Your task to perform on an android device: Clear the shopping cart on ebay. Search for "macbook pro 13 inch" on ebay, select the first entry, add it to the cart, then select checkout. Image 0: 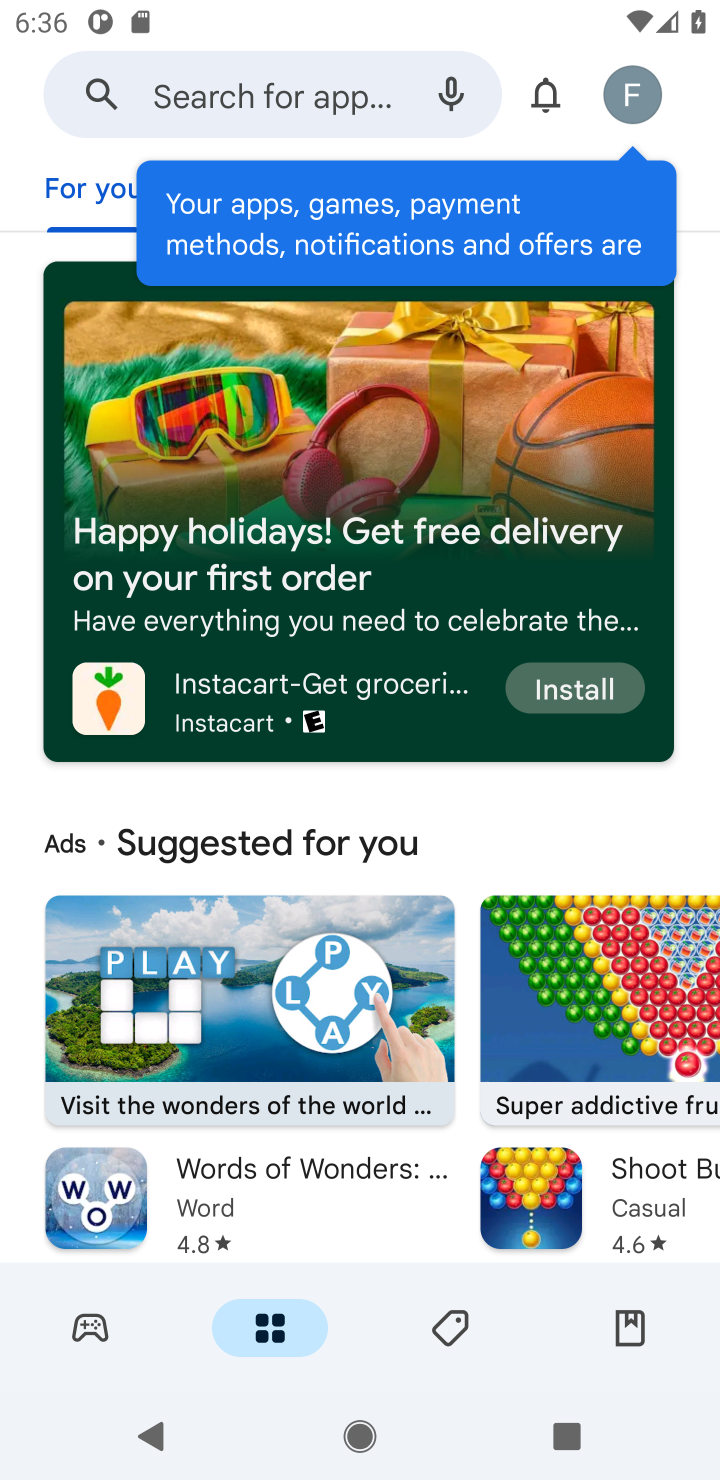
Step 0: press home button
Your task to perform on an android device: Clear the shopping cart on ebay. Search for "macbook pro 13 inch" on ebay, select the first entry, add it to the cart, then select checkout. Image 1: 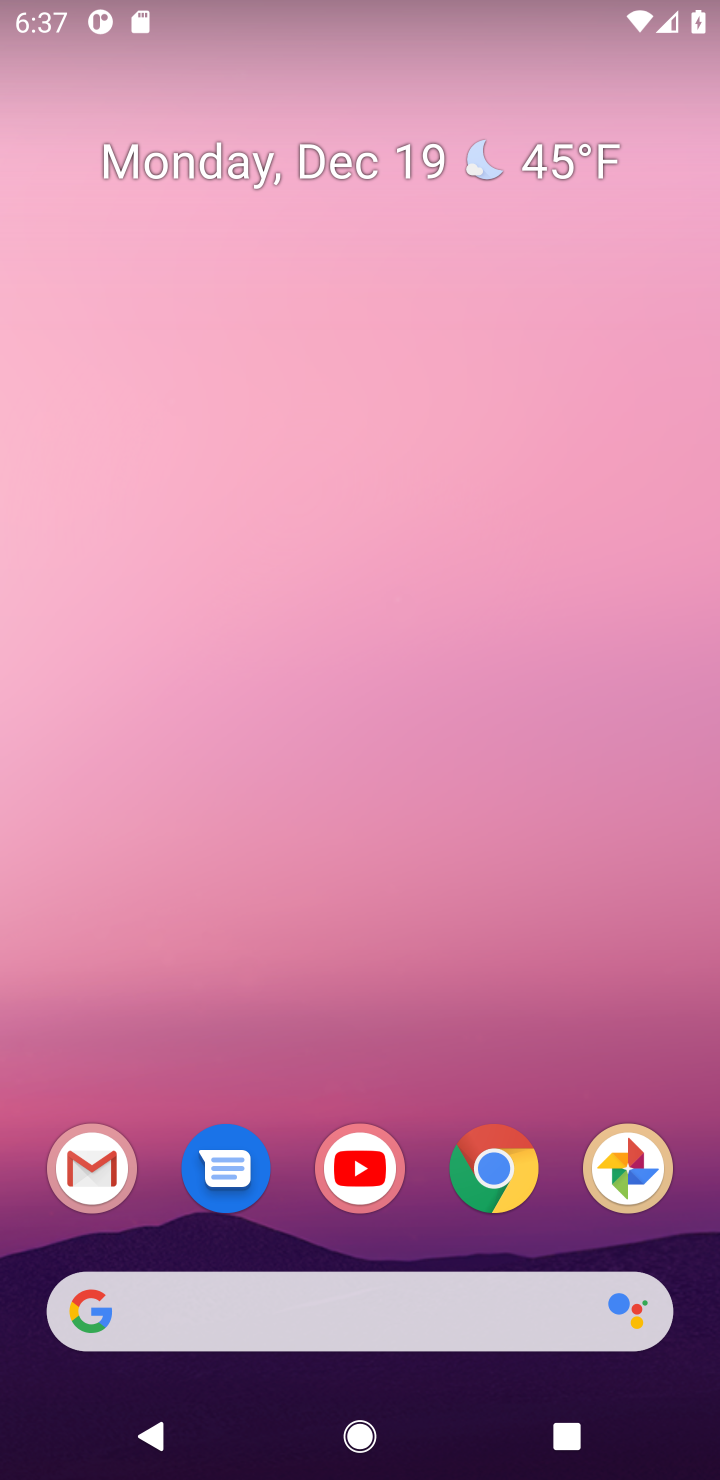
Step 1: click (492, 1180)
Your task to perform on an android device: Clear the shopping cart on ebay. Search for "macbook pro 13 inch" on ebay, select the first entry, add it to the cart, then select checkout. Image 2: 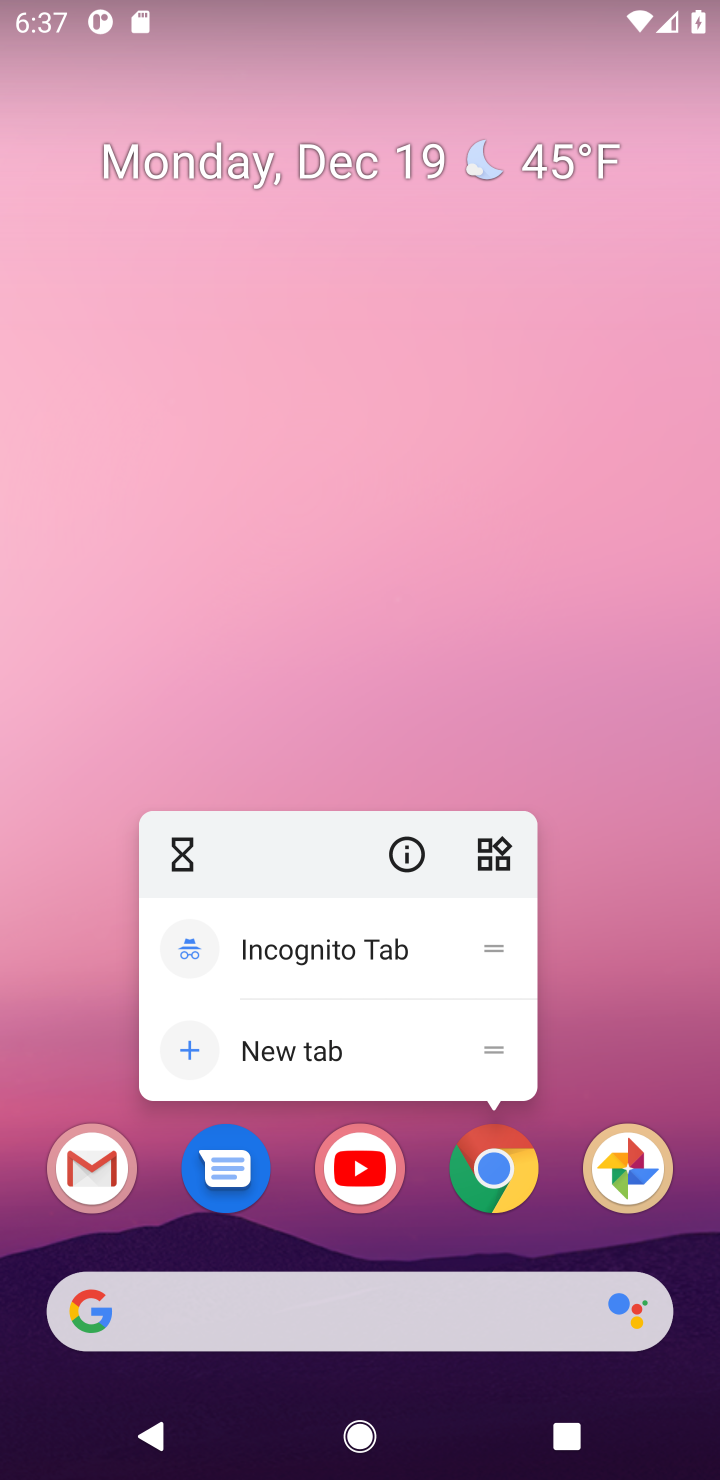
Step 2: click (492, 1180)
Your task to perform on an android device: Clear the shopping cart on ebay. Search for "macbook pro 13 inch" on ebay, select the first entry, add it to the cart, then select checkout. Image 3: 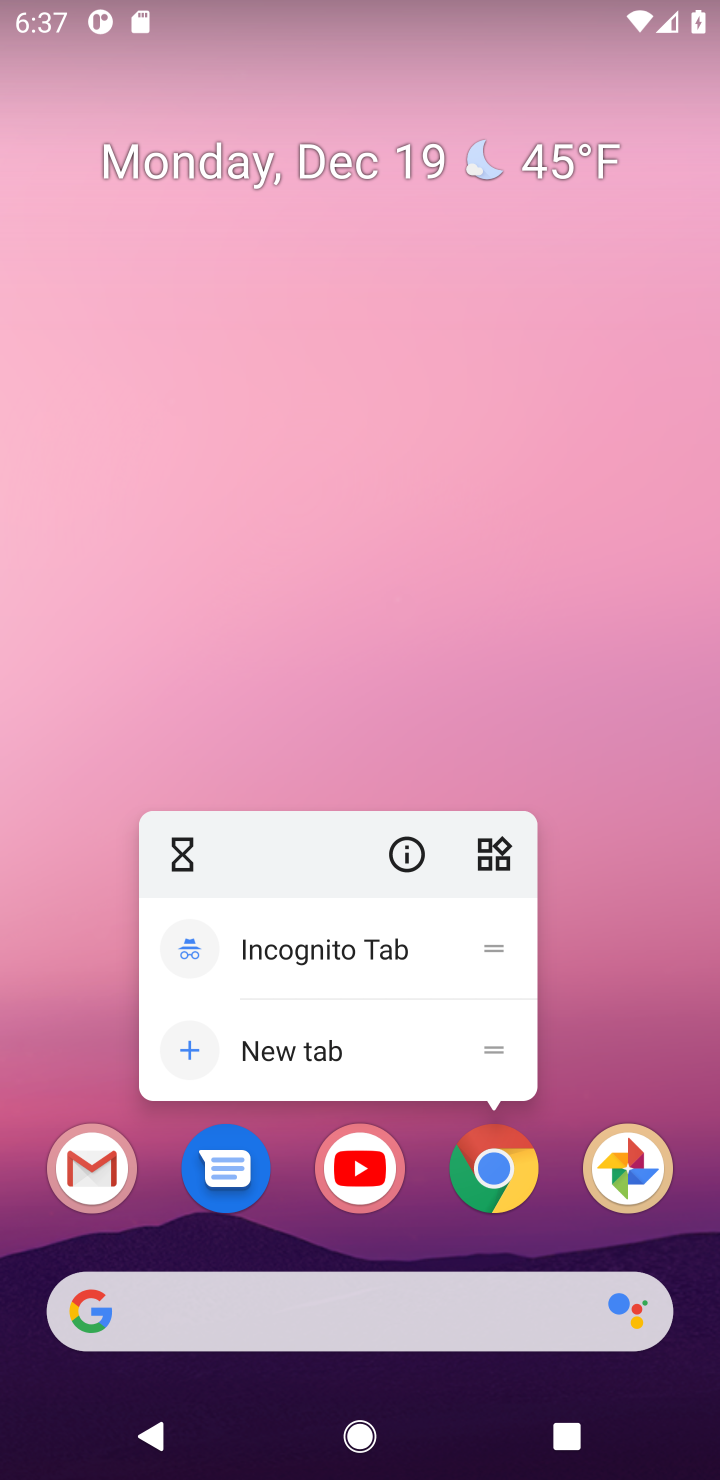
Step 3: click (505, 1172)
Your task to perform on an android device: Clear the shopping cart on ebay. Search for "macbook pro 13 inch" on ebay, select the first entry, add it to the cart, then select checkout. Image 4: 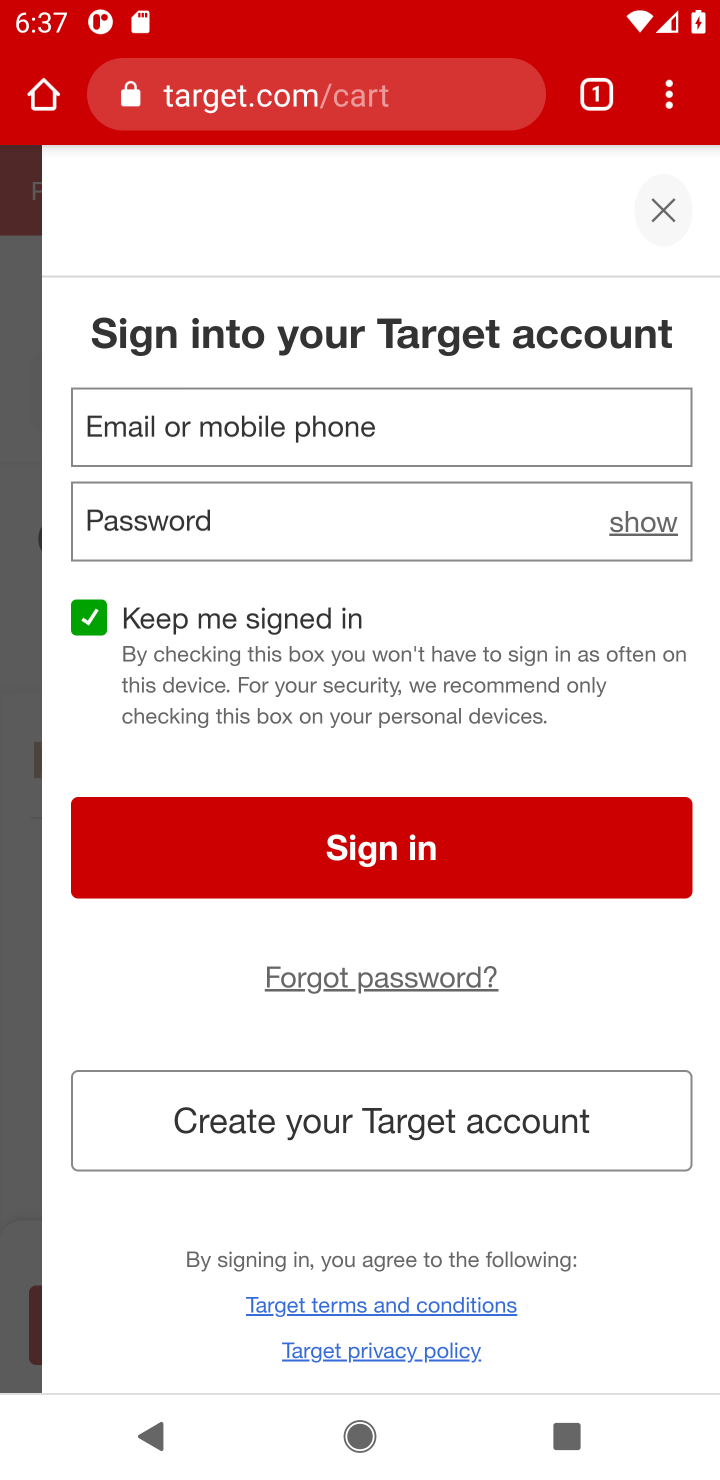
Step 4: click (247, 103)
Your task to perform on an android device: Clear the shopping cart on ebay. Search for "macbook pro 13 inch" on ebay, select the first entry, add it to the cart, then select checkout. Image 5: 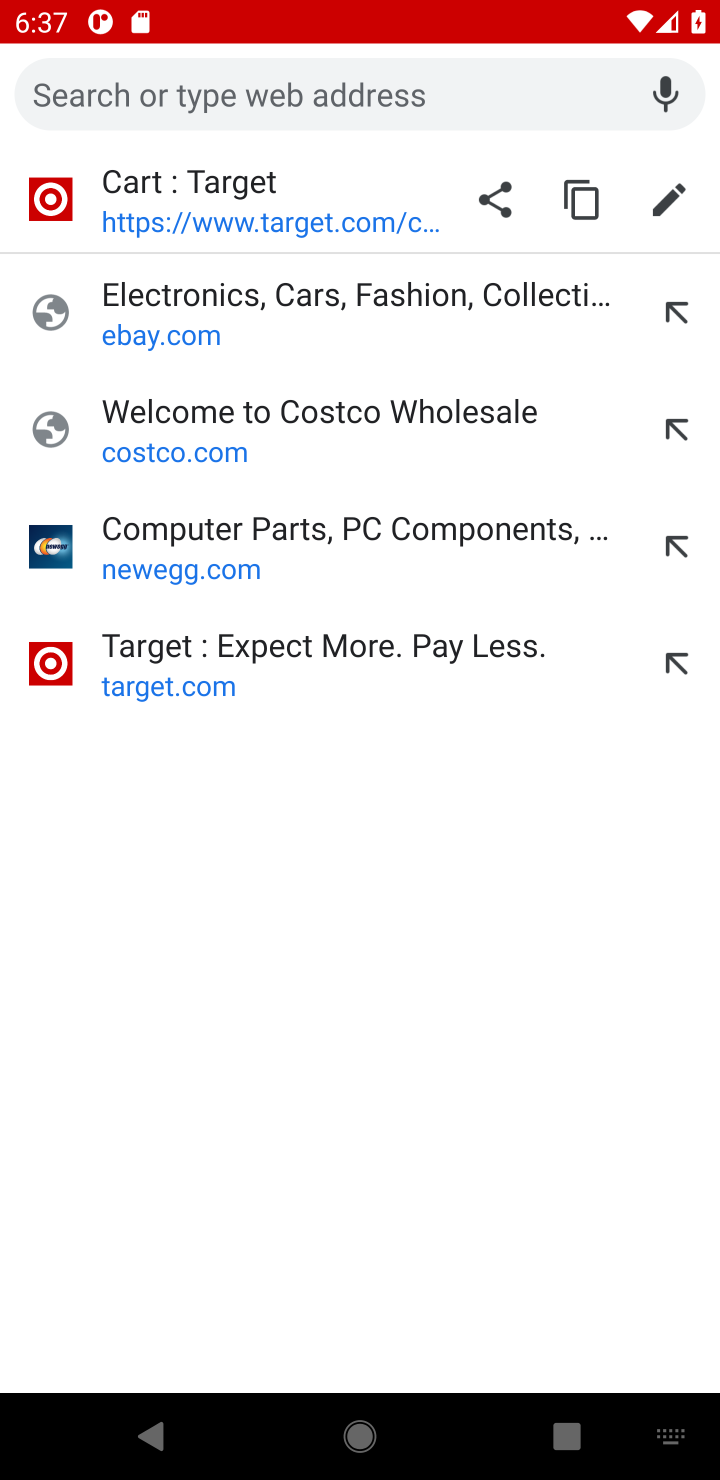
Step 5: click (146, 333)
Your task to perform on an android device: Clear the shopping cart on ebay. Search for "macbook pro 13 inch" on ebay, select the first entry, add it to the cart, then select checkout. Image 6: 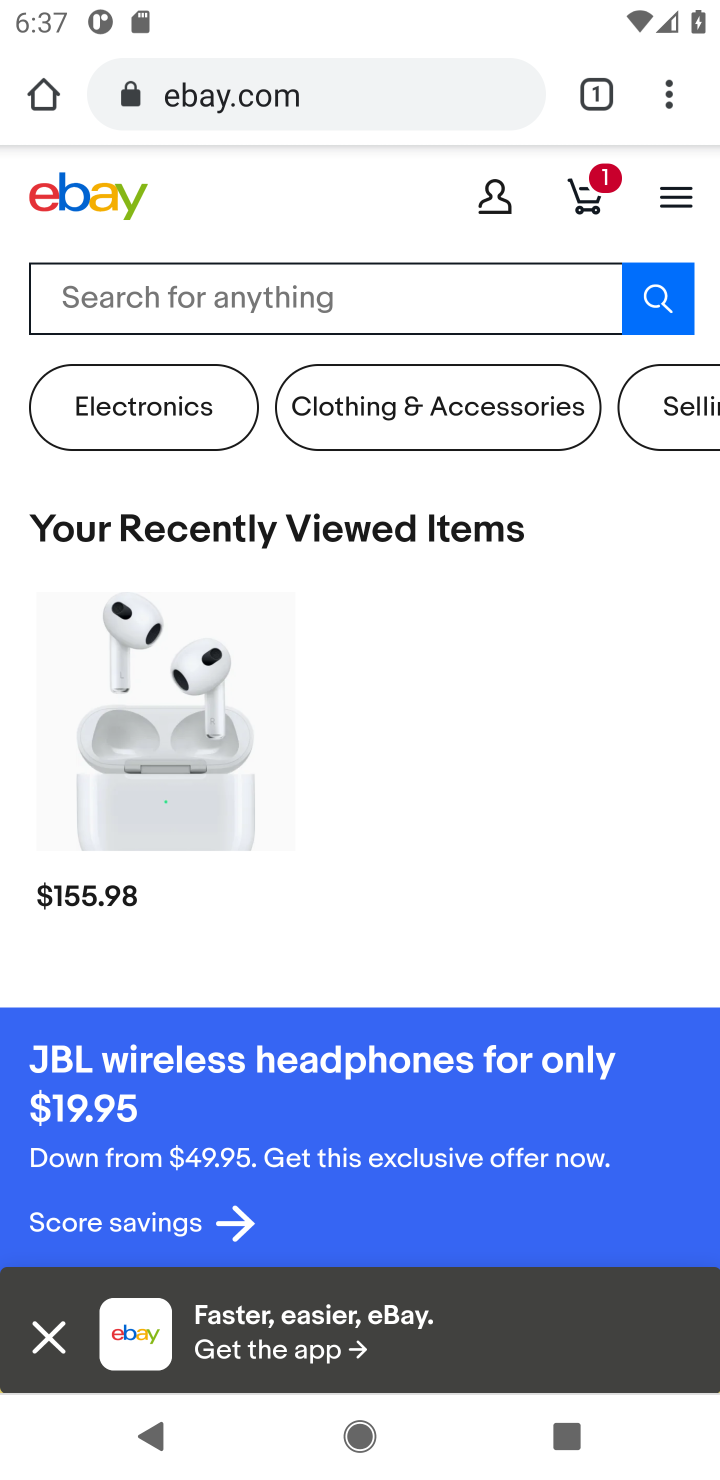
Step 6: click (590, 202)
Your task to perform on an android device: Clear the shopping cart on ebay. Search for "macbook pro 13 inch" on ebay, select the first entry, add it to the cart, then select checkout. Image 7: 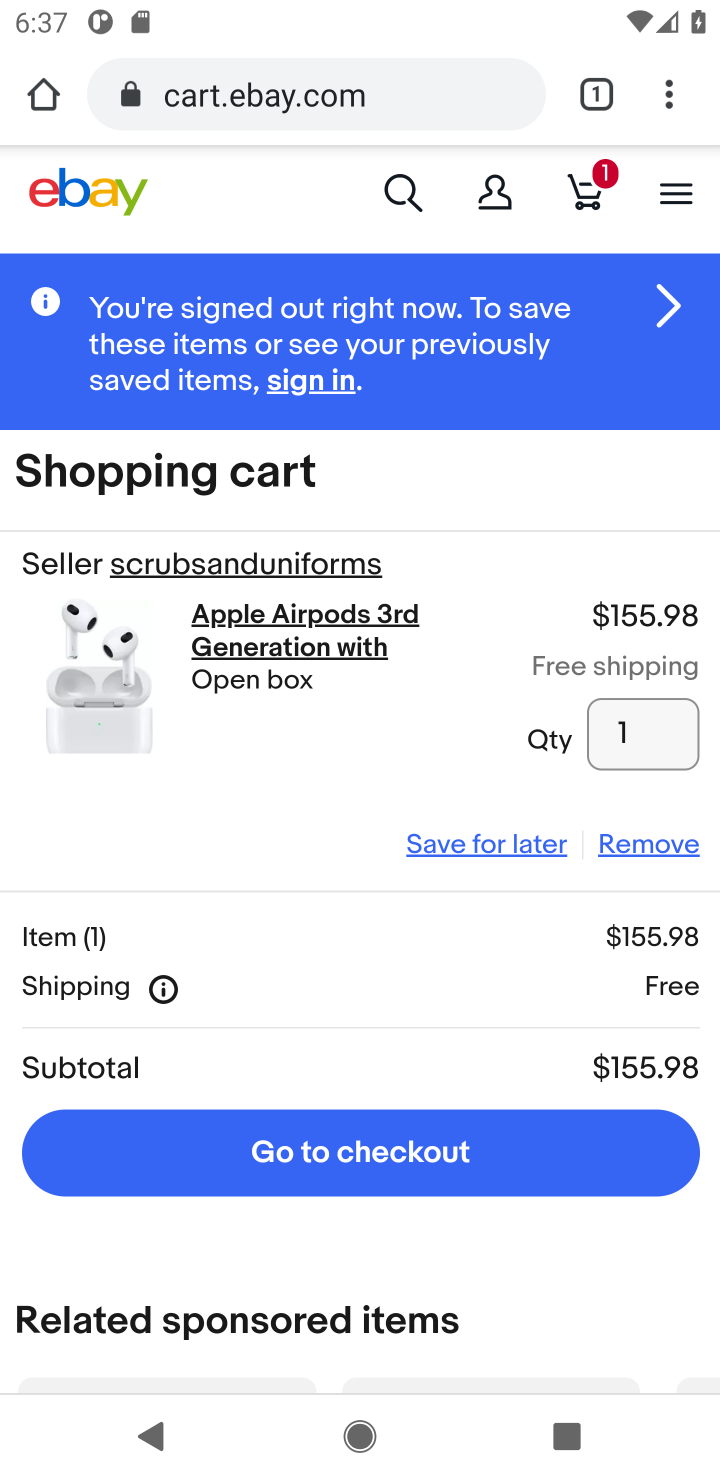
Step 7: click (655, 844)
Your task to perform on an android device: Clear the shopping cart on ebay. Search for "macbook pro 13 inch" on ebay, select the first entry, add it to the cart, then select checkout. Image 8: 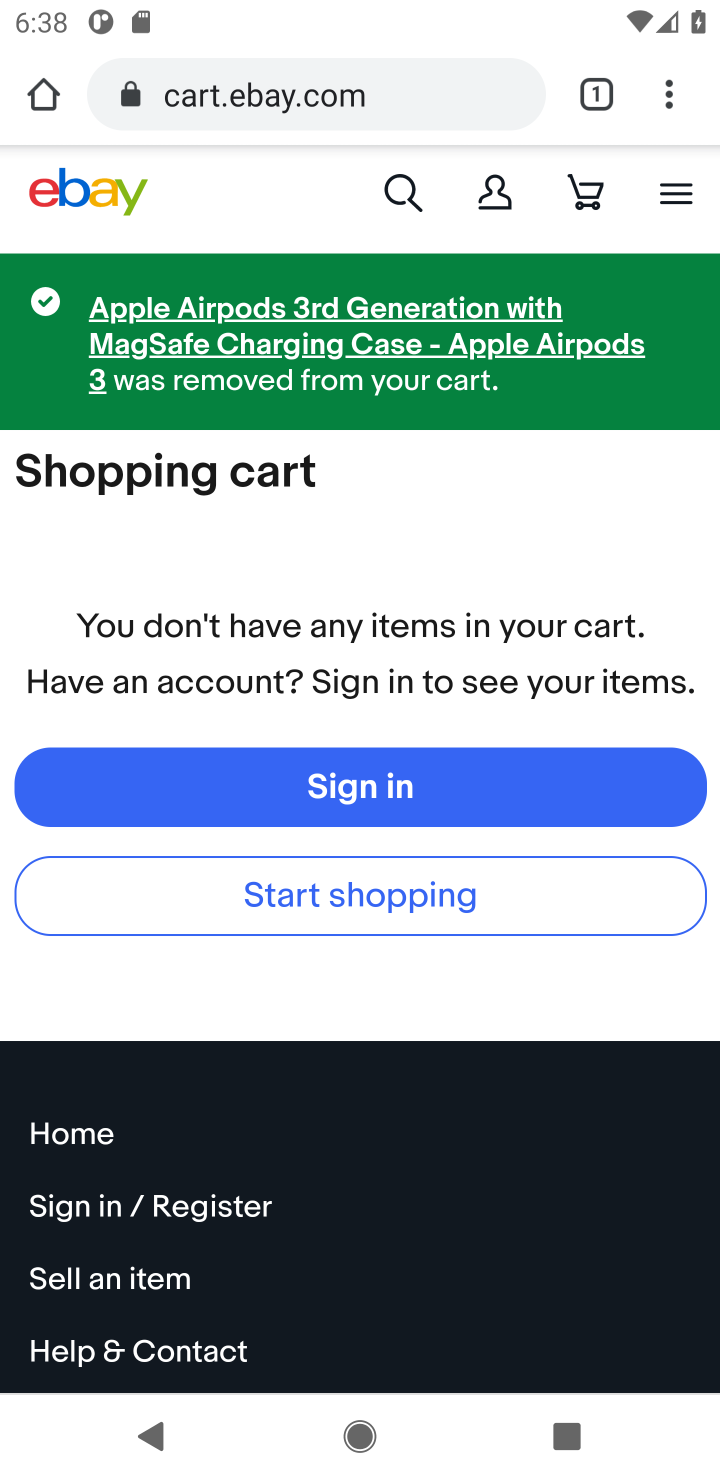
Step 8: click (392, 191)
Your task to perform on an android device: Clear the shopping cart on ebay. Search for "macbook pro 13 inch" on ebay, select the first entry, add it to the cart, then select checkout. Image 9: 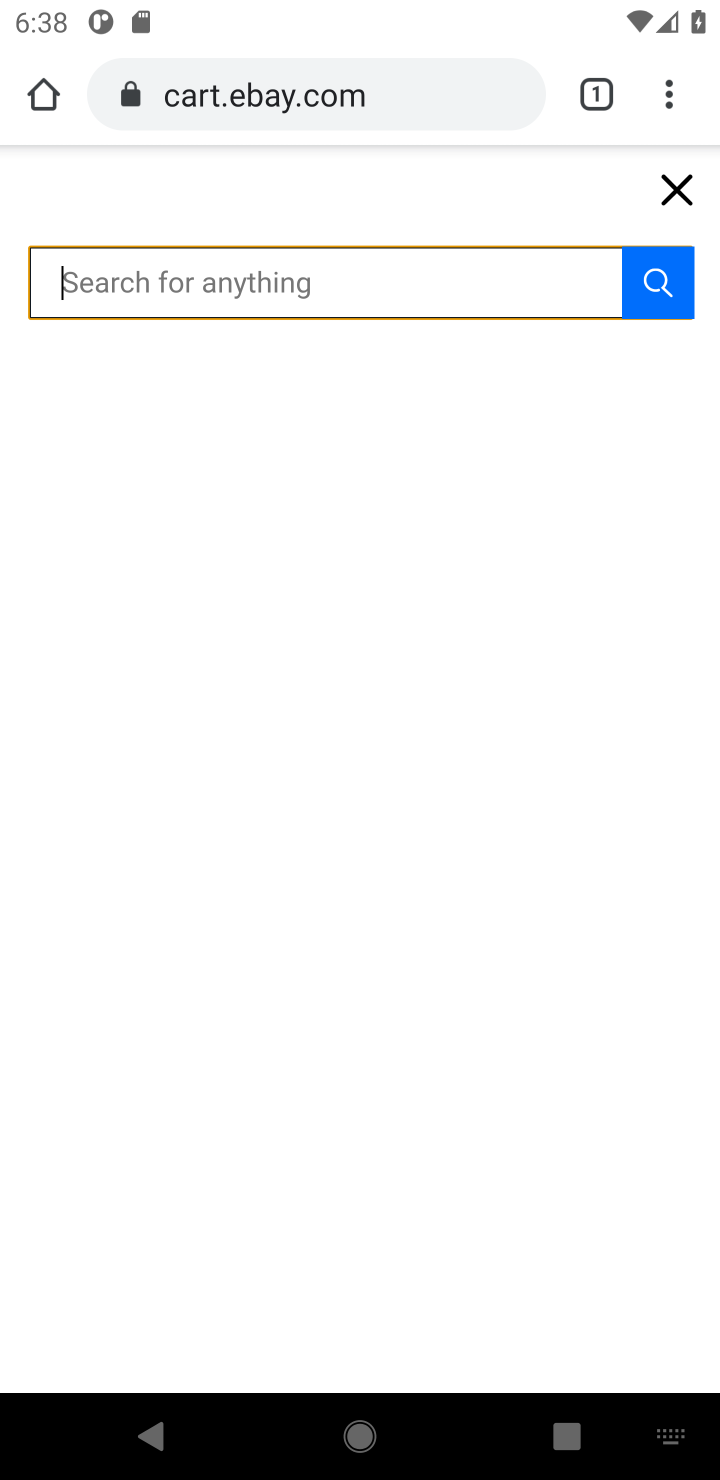
Step 9: type "macbook pro 13 inch"
Your task to perform on an android device: Clear the shopping cart on ebay. Search for "macbook pro 13 inch" on ebay, select the first entry, add it to the cart, then select checkout. Image 10: 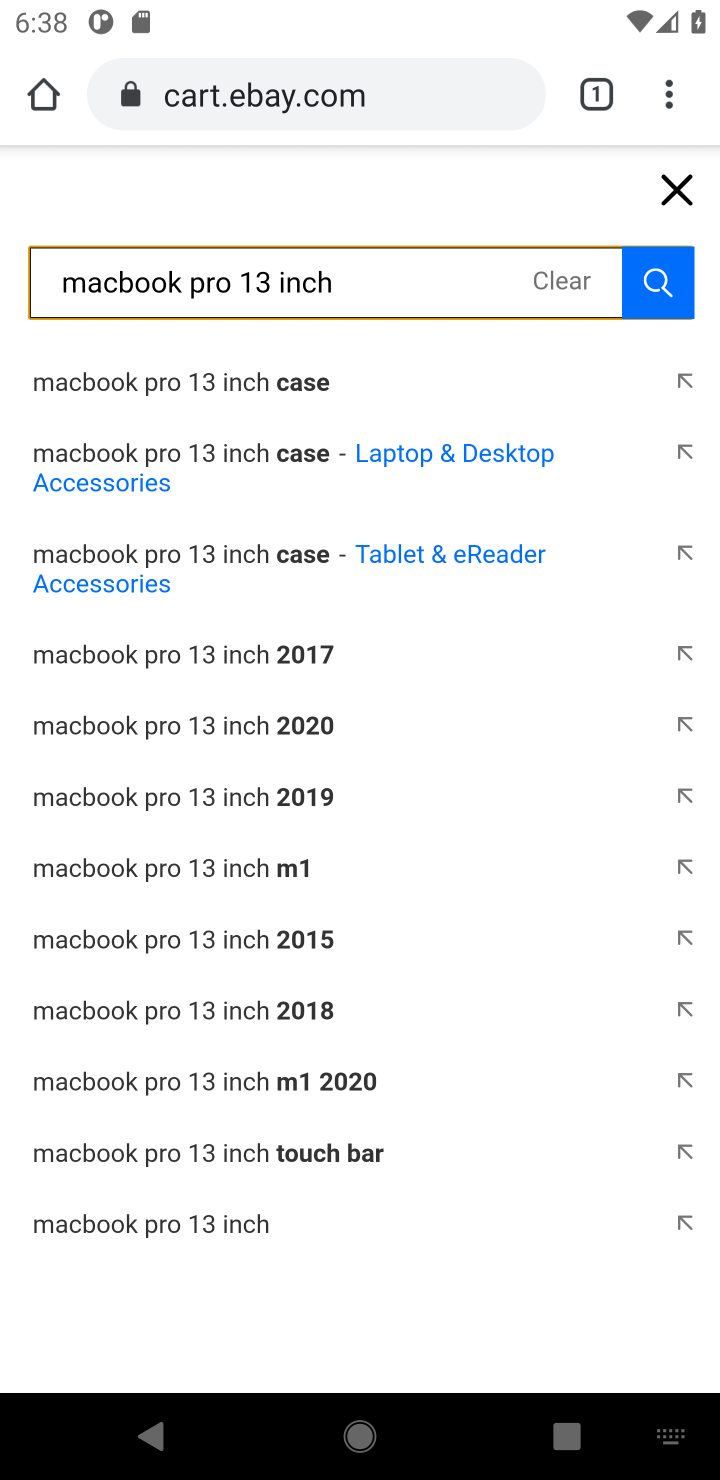
Step 10: click (126, 1231)
Your task to perform on an android device: Clear the shopping cart on ebay. Search for "macbook pro 13 inch" on ebay, select the first entry, add it to the cart, then select checkout. Image 11: 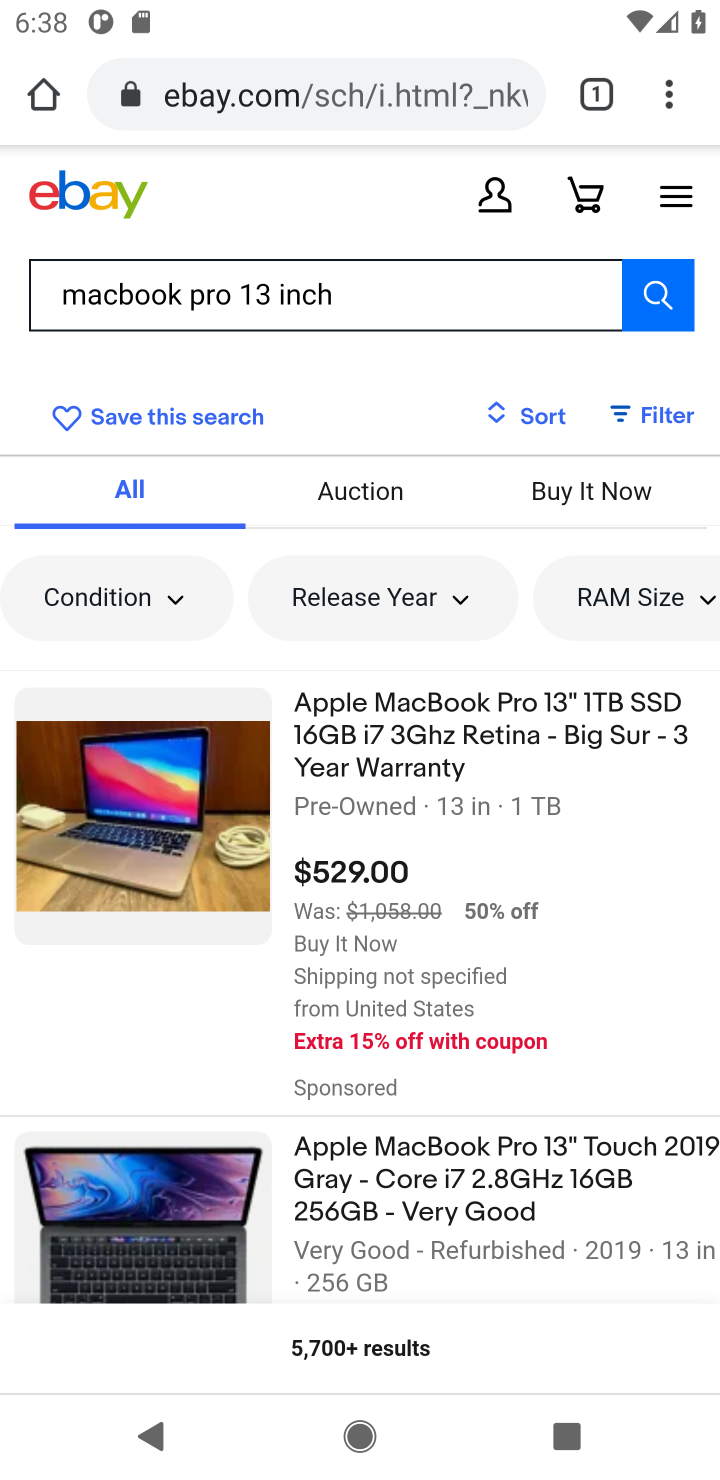
Step 11: click (378, 735)
Your task to perform on an android device: Clear the shopping cart on ebay. Search for "macbook pro 13 inch" on ebay, select the first entry, add it to the cart, then select checkout. Image 12: 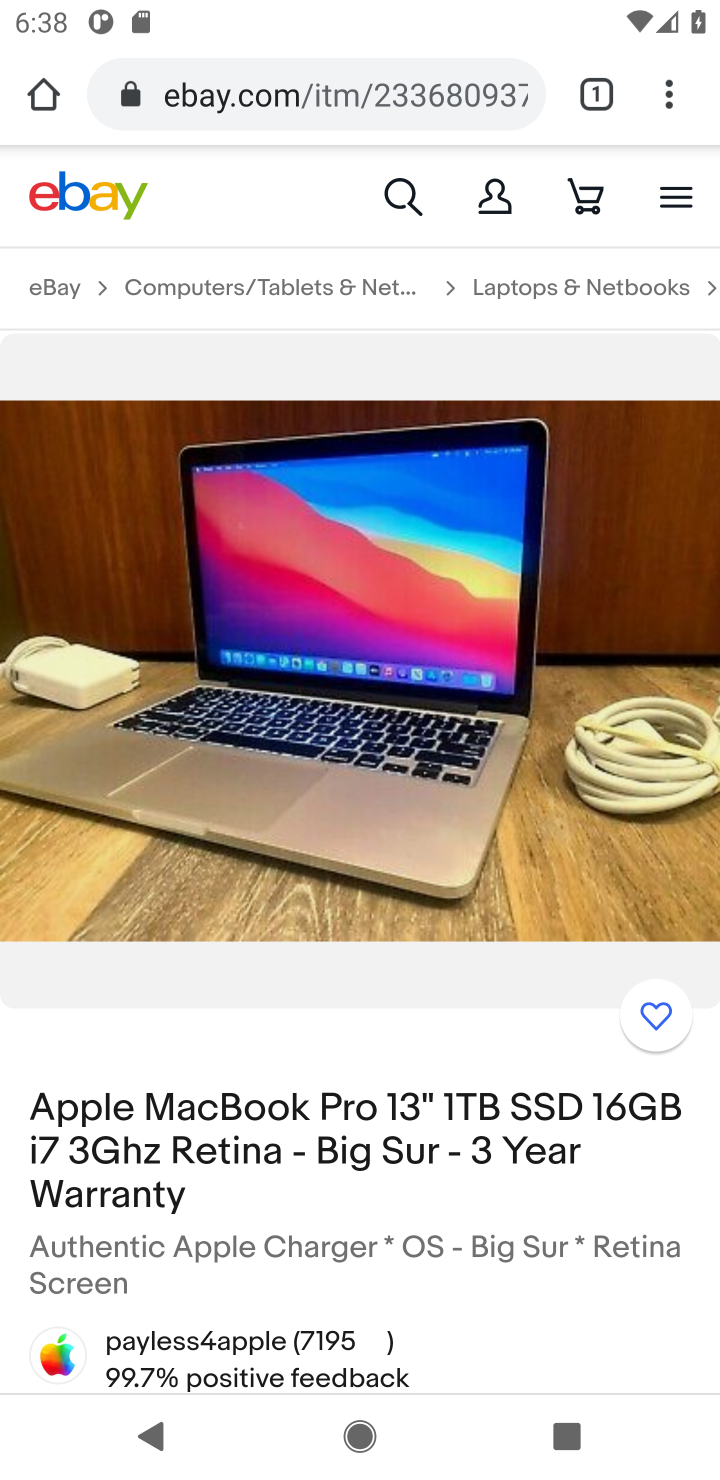
Step 12: drag from (268, 1082) to (289, 608)
Your task to perform on an android device: Clear the shopping cart on ebay. Search for "macbook pro 13 inch" on ebay, select the first entry, add it to the cart, then select checkout. Image 13: 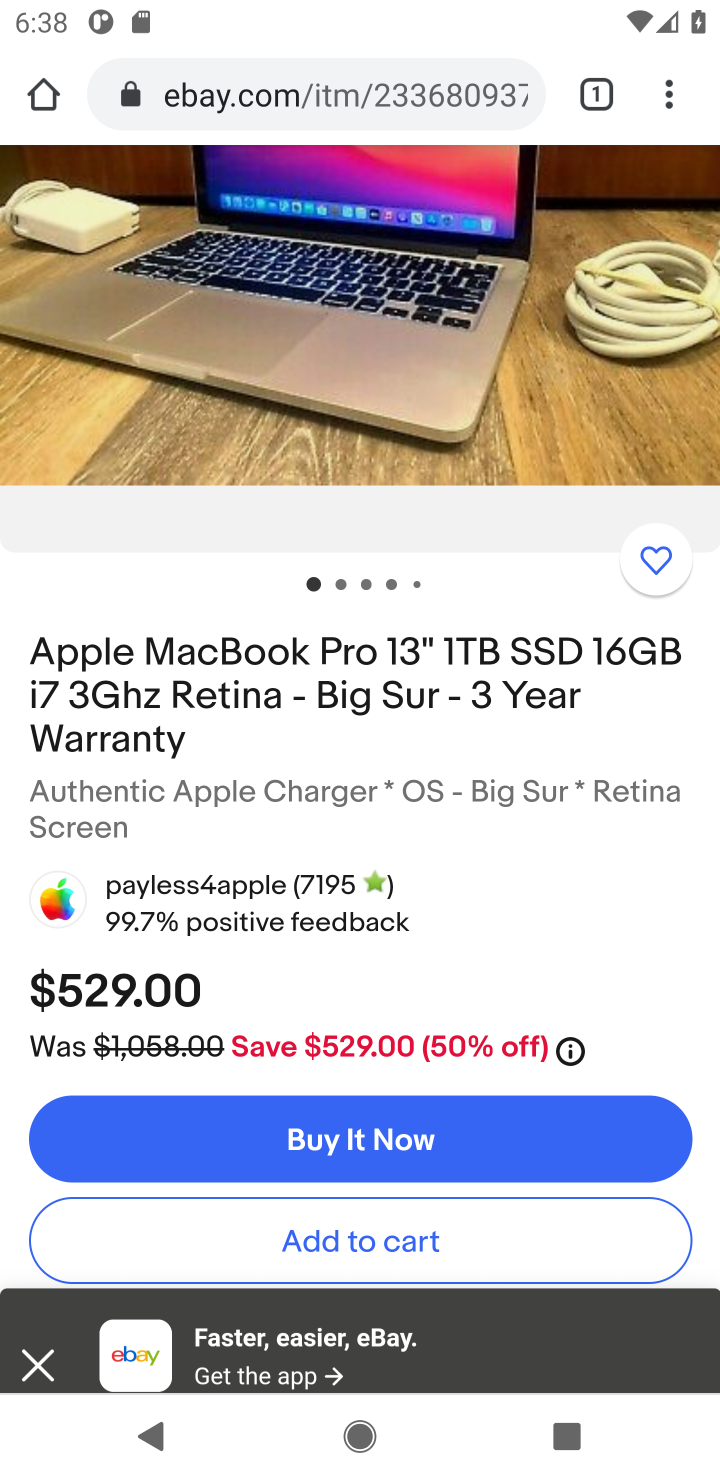
Step 13: drag from (277, 1063) to (281, 694)
Your task to perform on an android device: Clear the shopping cart on ebay. Search for "macbook pro 13 inch" on ebay, select the first entry, add it to the cart, then select checkout. Image 14: 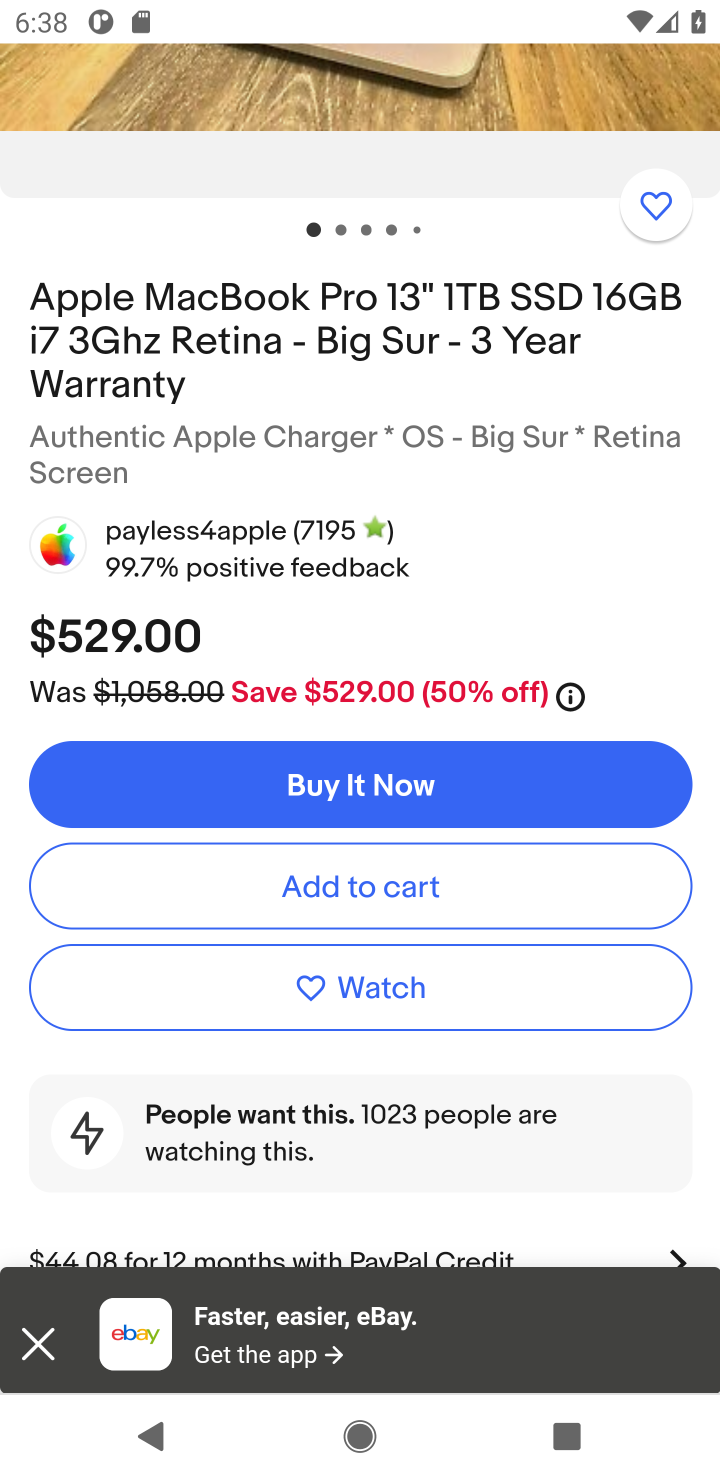
Step 14: click (308, 884)
Your task to perform on an android device: Clear the shopping cart on ebay. Search for "macbook pro 13 inch" on ebay, select the first entry, add it to the cart, then select checkout. Image 15: 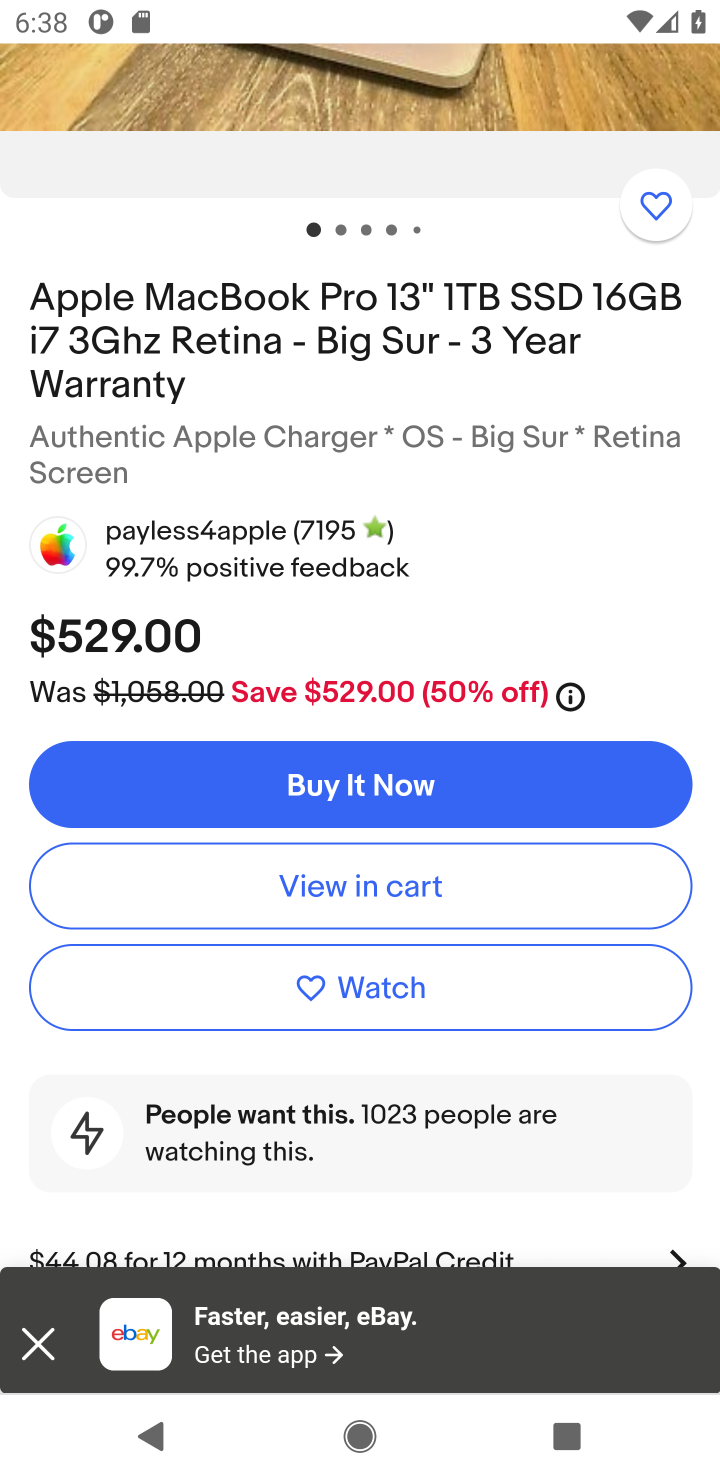
Step 15: click (345, 895)
Your task to perform on an android device: Clear the shopping cart on ebay. Search for "macbook pro 13 inch" on ebay, select the first entry, add it to the cart, then select checkout. Image 16: 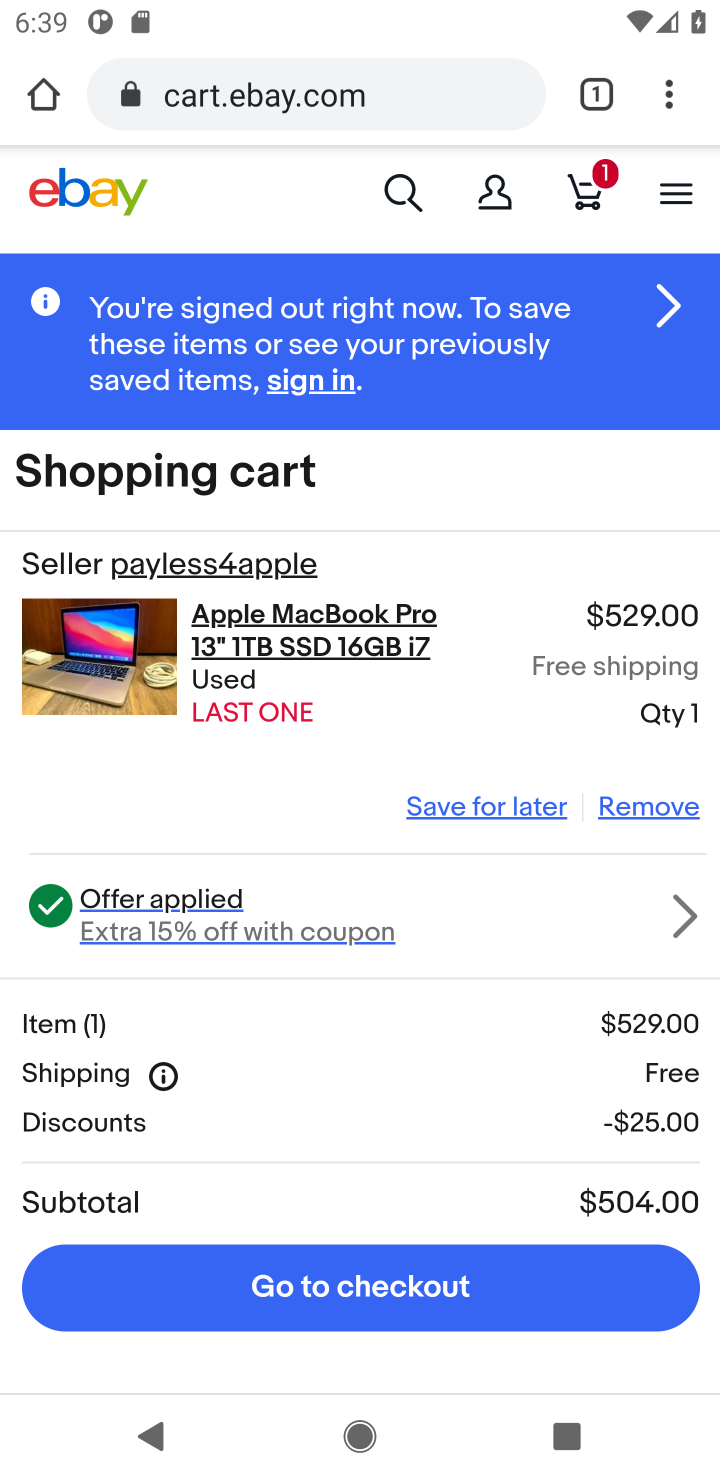
Step 16: click (327, 1280)
Your task to perform on an android device: Clear the shopping cart on ebay. Search for "macbook pro 13 inch" on ebay, select the first entry, add it to the cart, then select checkout. Image 17: 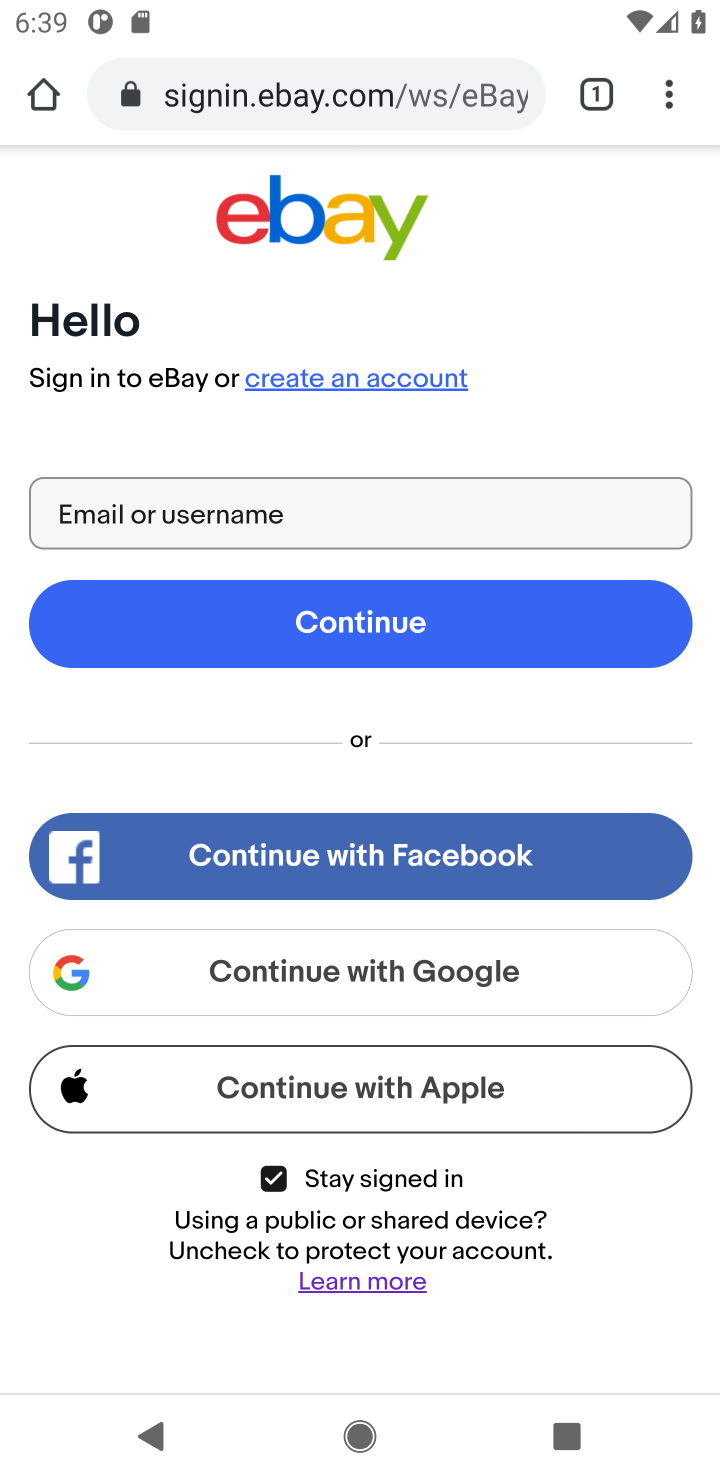
Step 17: task complete